Your task to perform on an android device: Turn on the flashlight Image 0: 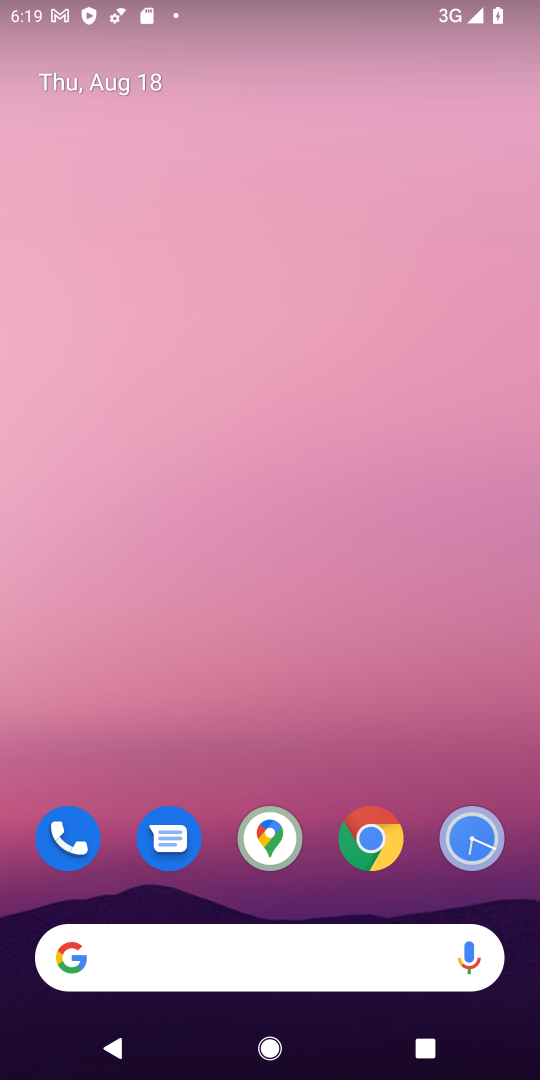
Step 0: press home button
Your task to perform on an android device: Turn on the flashlight Image 1: 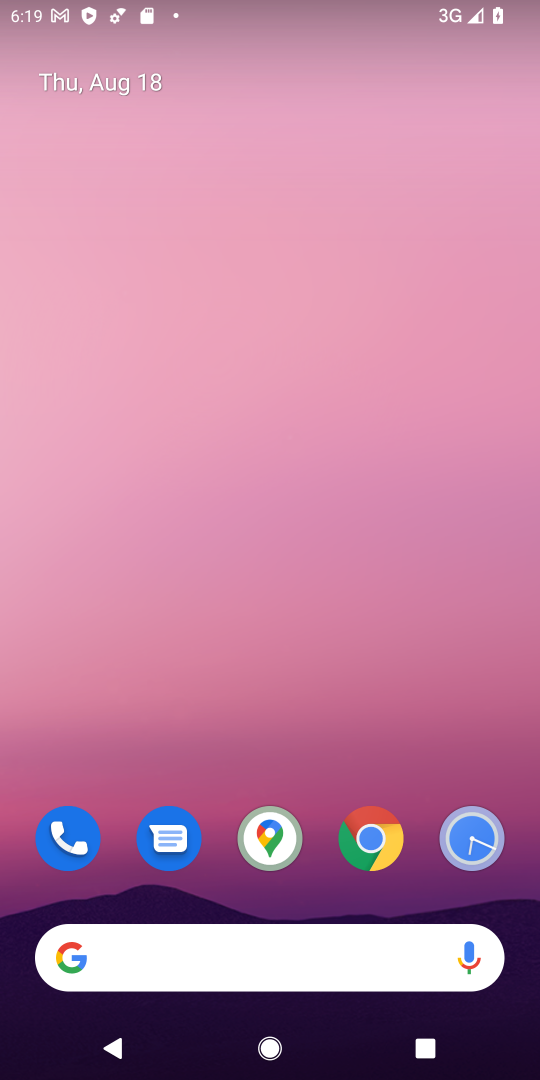
Step 1: drag from (248, 0) to (307, 685)
Your task to perform on an android device: Turn on the flashlight Image 2: 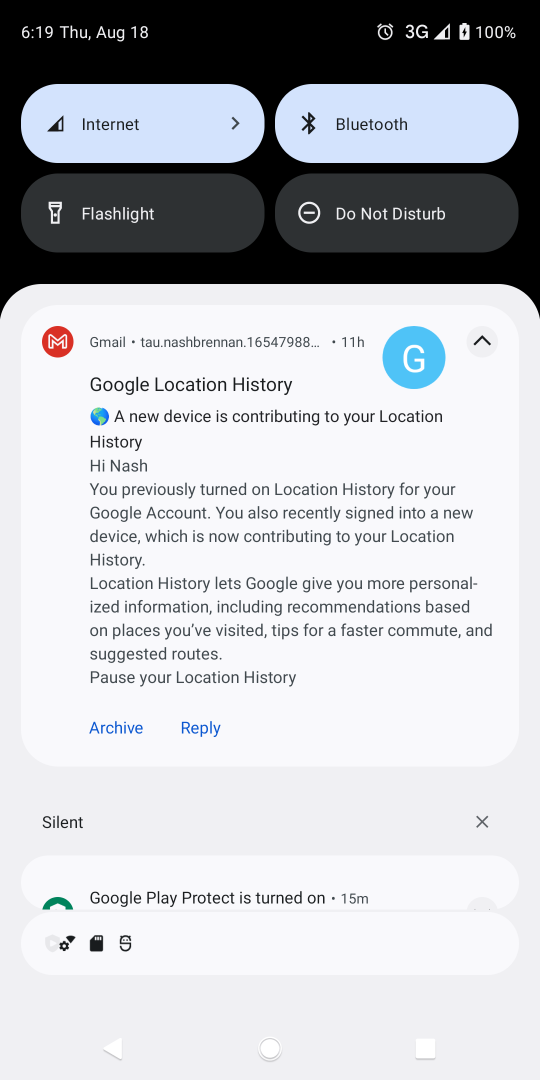
Step 2: click (108, 219)
Your task to perform on an android device: Turn on the flashlight Image 3: 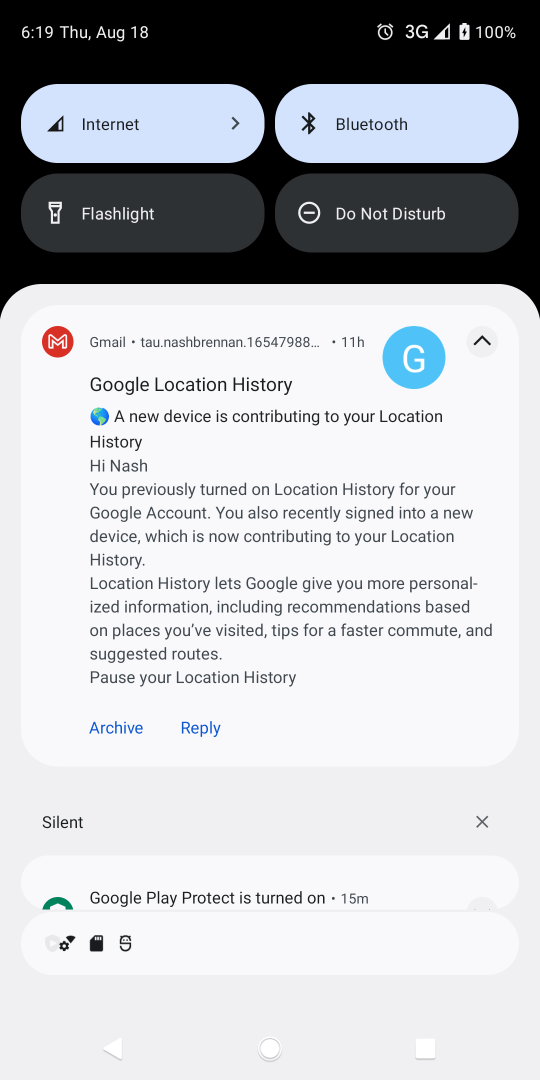
Step 3: task complete